Your task to perform on an android device: Go to Amazon Image 0: 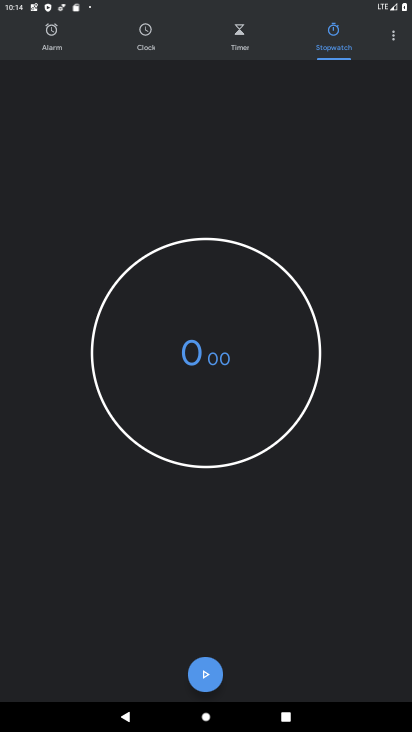
Step 0: press home button
Your task to perform on an android device: Go to Amazon Image 1: 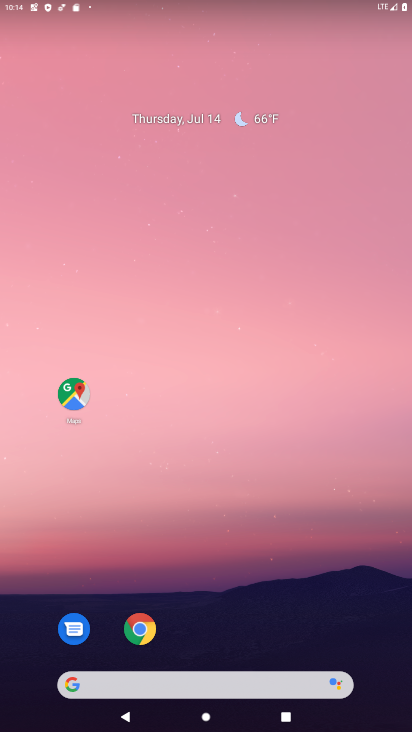
Step 1: click (71, 689)
Your task to perform on an android device: Go to Amazon Image 2: 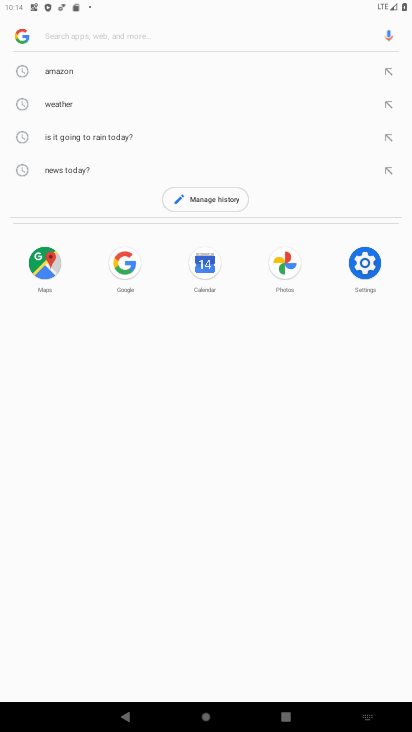
Step 2: type "Amazon"
Your task to perform on an android device: Go to Amazon Image 3: 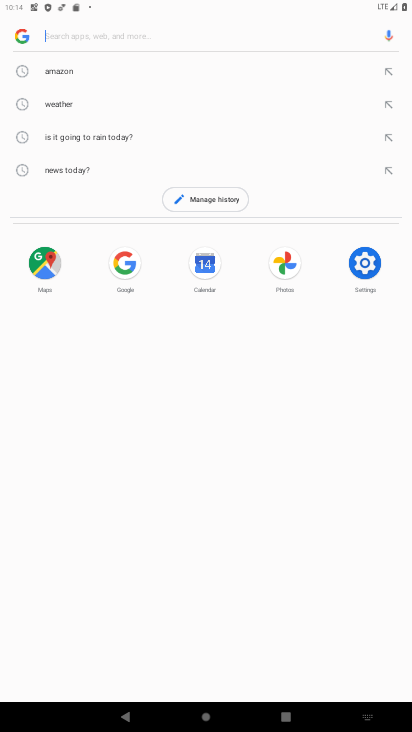
Step 3: click (115, 31)
Your task to perform on an android device: Go to Amazon Image 4: 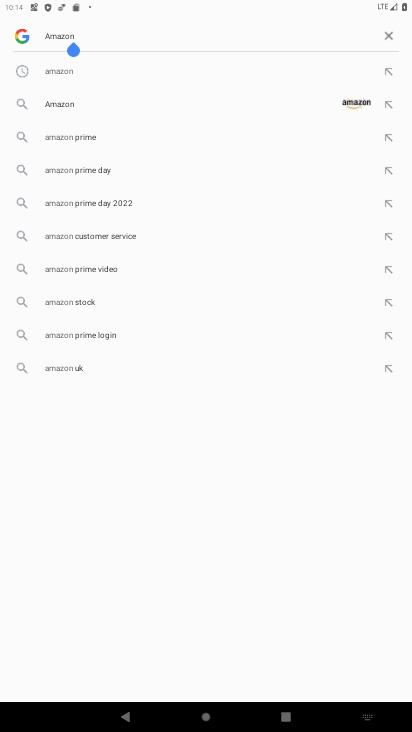
Step 4: click (350, 104)
Your task to perform on an android device: Go to Amazon Image 5: 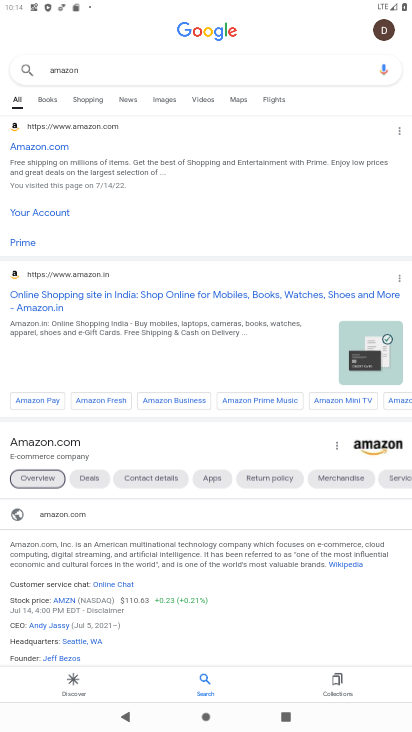
Step 5: click (31, 153)
Your task to perform on an android device: Go to Amazon Image 6: 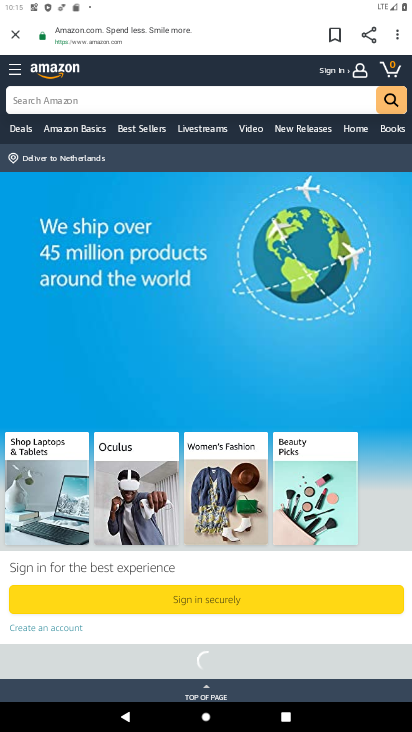
Step 6: task complete